Your task to perform on an android device: open chrome and create a bookmark for the current page Image 0: 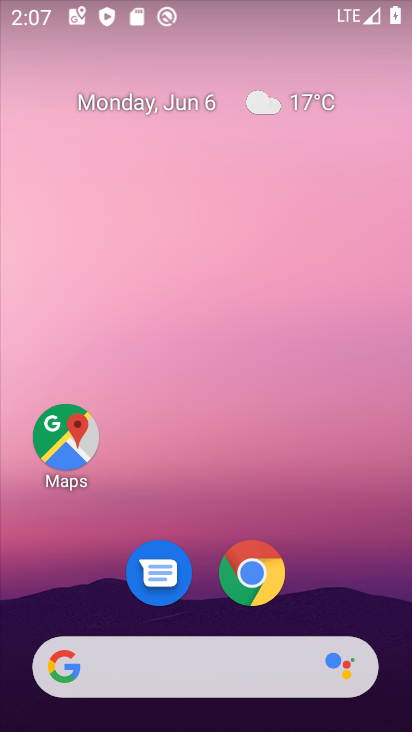
Step 0: drag from (340, 553) to (363, 175)
Your task to perform on an android device: open chrome and create a bookmark for the current page Image 1: 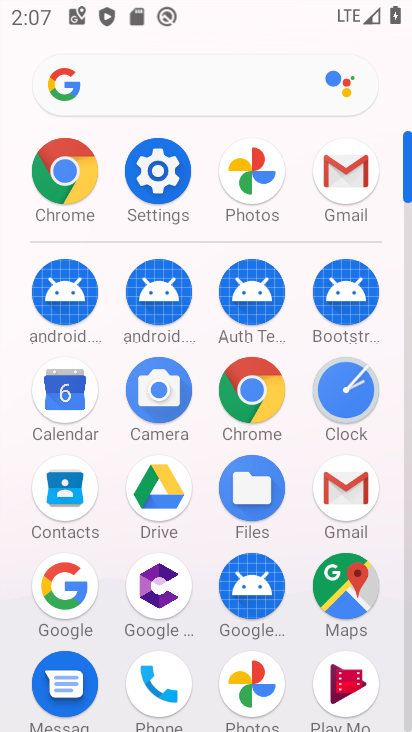
Step 1: click (264, 401)
Your task to perform on an android device: open chrome and create a bookmark for the current page Image 2: 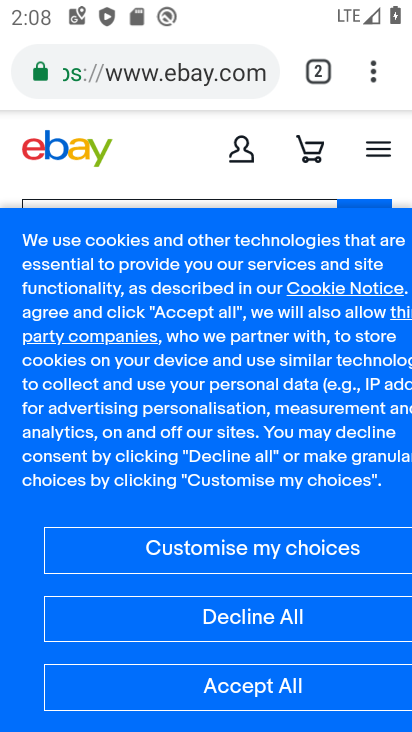
Step 2: click (372, 80)
Your task to perform on an android device: open chrome and create a bookmark for the current page Image 3: 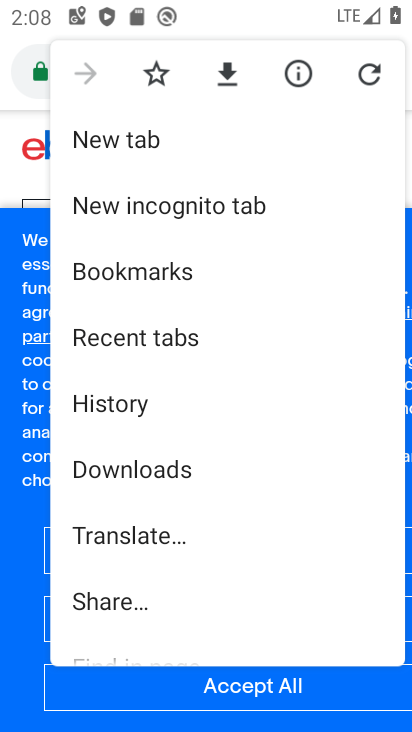
Step 3: click (152, 79)
Your task to perform on an android device: open chrome and create a bookmark for the current page Image 4: 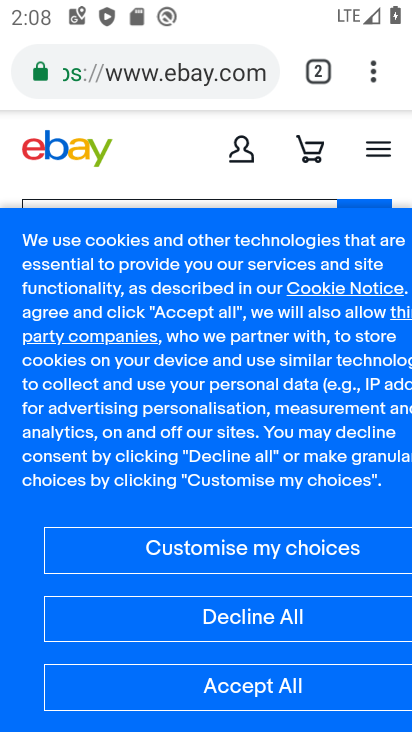
Step 4: task complete